Your task to perform on an android device: clear all cookies in the chrome app Image 0: 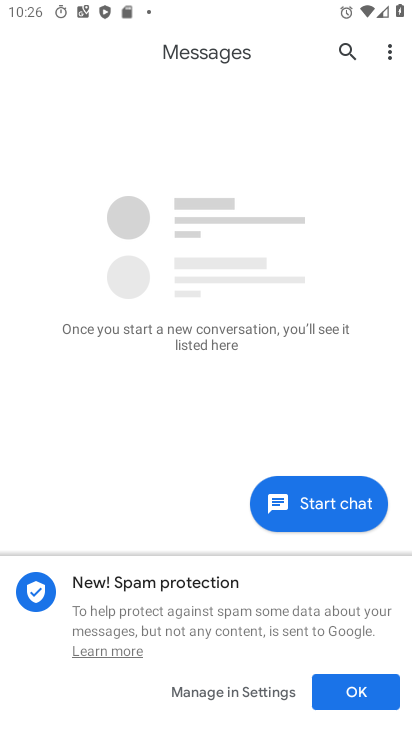
Step 0: press home button
Your task to perform on an android device: clear all cookies in the chrome app Image 1: 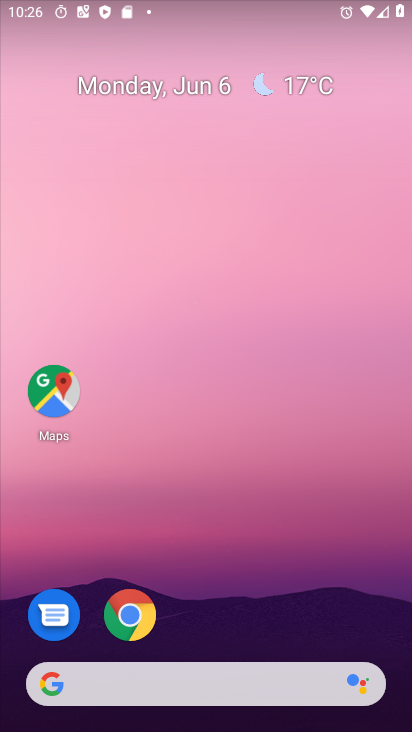
Step 1: click (130, 608)
Your task to perform on an android device: clear all cookies in the chrome app Image 2: 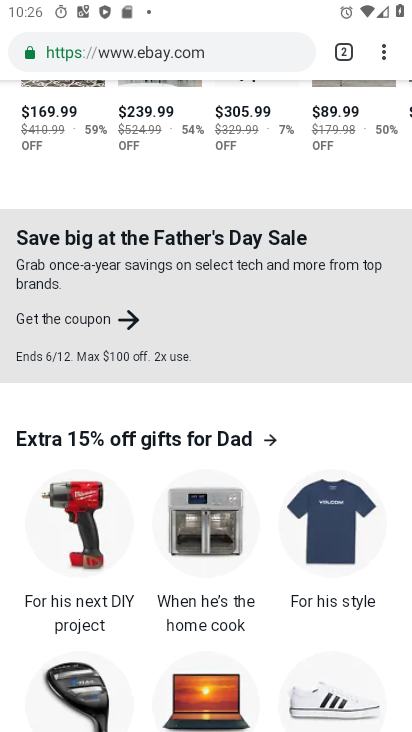
Step 2: click (383, 47)
Your task to perform on an android device: clear all cookies in the chrome app Image 3: 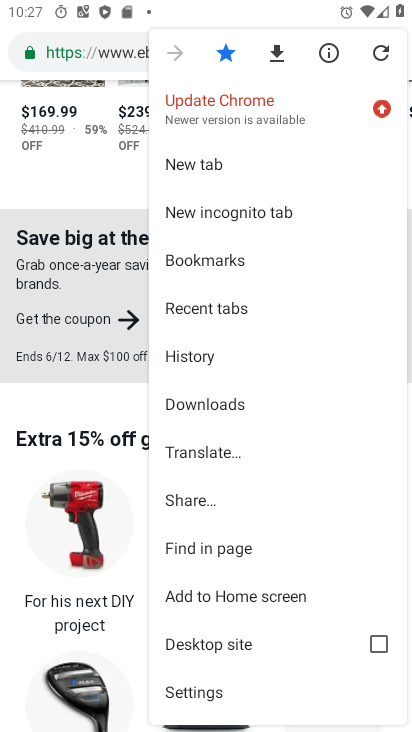
Step 3: click (226, 348)
Your task to perform on an android device: clear all cookies in the chrome app Image 4: 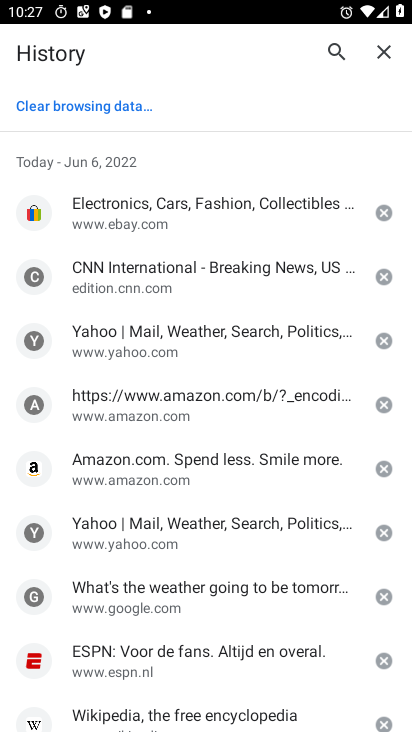
Step 4: click (82, 97)
Your task to perform on an android device: clear all cookies in the chrome app Image 5: 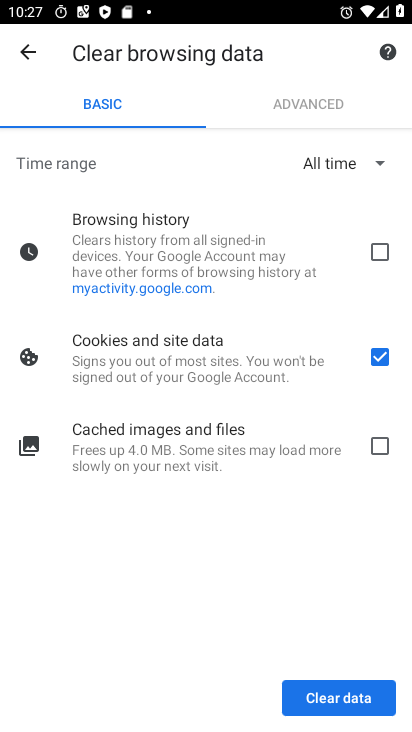
Step 5: click (333, 694)
Your task to perform on an android device: clear all cookies in the chrome app Image 6: 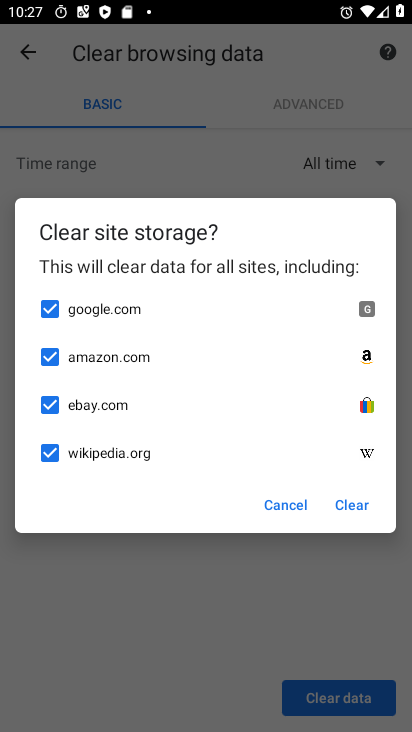
Step 6: click (352, 505)
Your task to perform on an android device: clear all cookies in the chrome app Image 7: 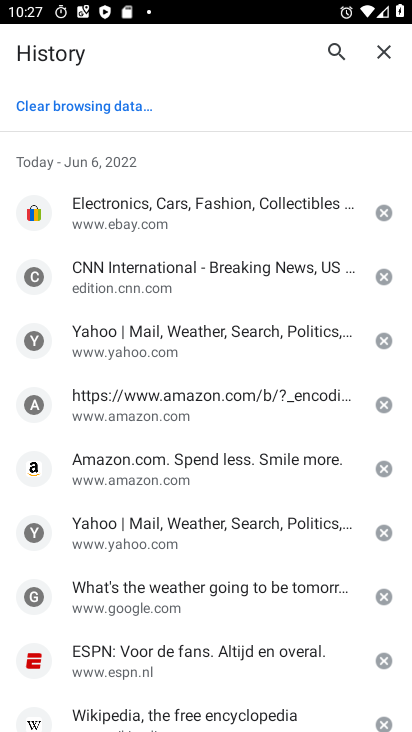
Step 7: task complete